Your task to perform on an android device: Go to CNN.com Image 0: 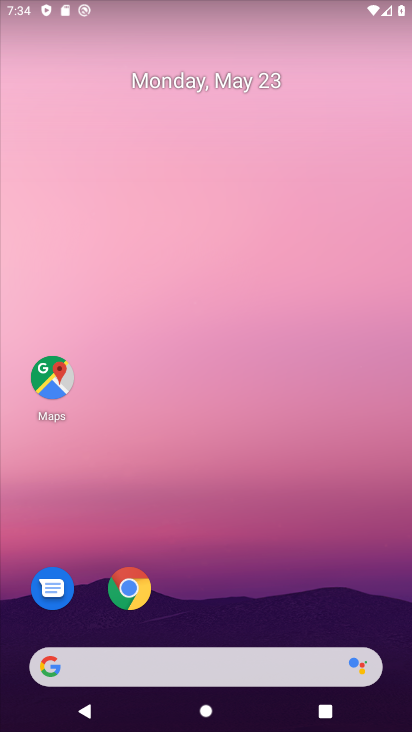
Step 0: click (111, 589)
Your task to perform on an android device: Go to CNN.com Image 1: 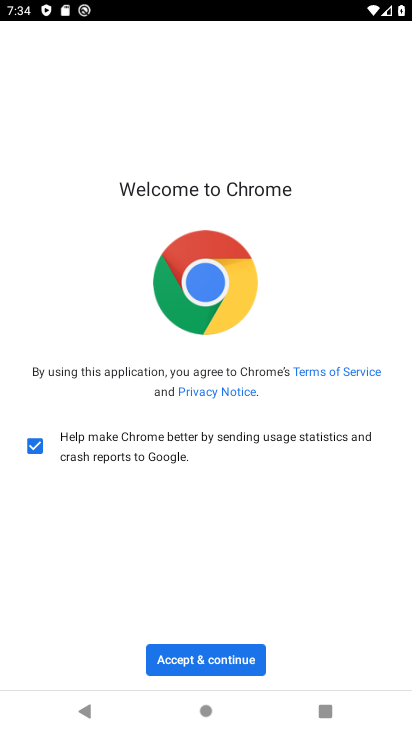
Step 1: click (190, 661)
Your task to perform on an android device: Go to CNN.com Image 2: 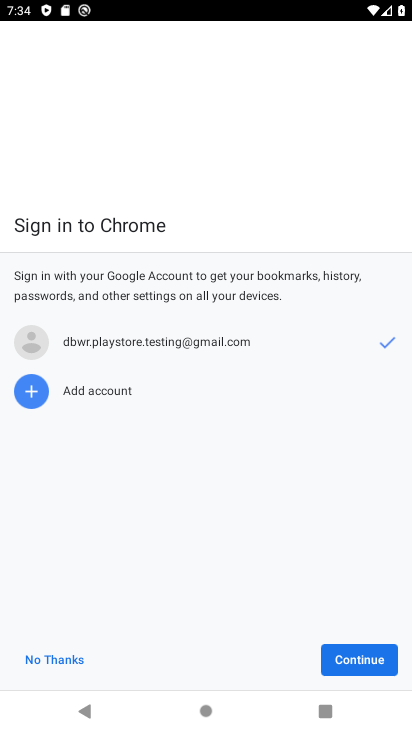
Step 2: click (388, 658)
Your task to perform on an android device: Go to CNN.com Image 3: 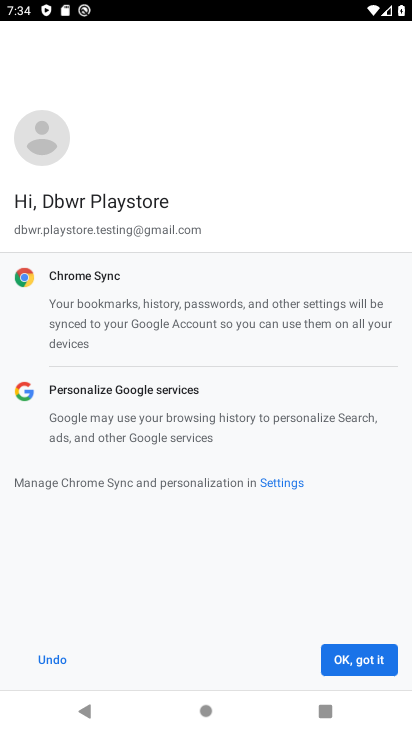
Step 3: click (377, 657)
Your task to perform on an android device: Go to CNN.com Image 4: 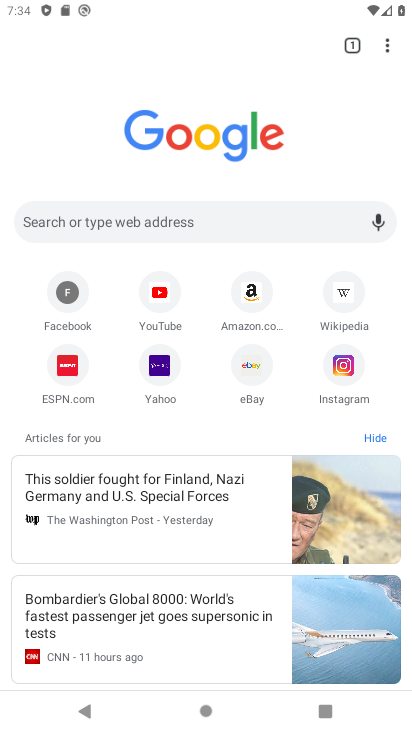
Step 4: click (248, 225)
Your task to perform on an android device: Go to CNN.com Image 5: 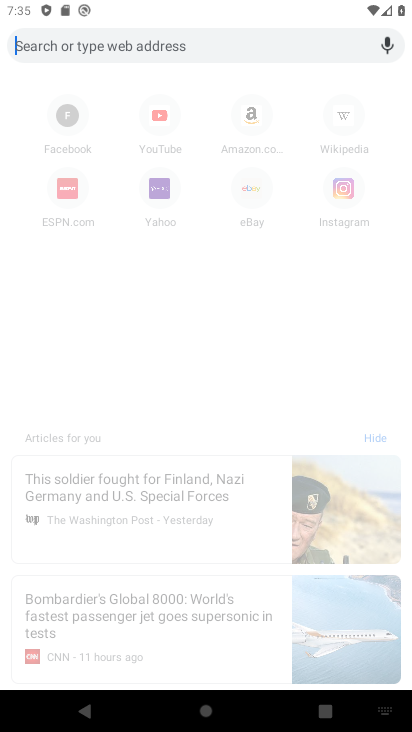
Step 5: type " CNN.com"
Your task to perform on an android device: Go to CNN.com Image 6: 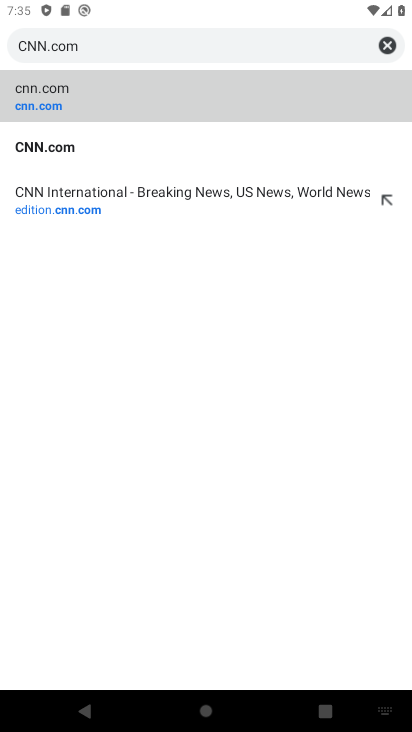
Step 6: click (55, 142)
Your task to perform on an android device: Go to CNN.com Image 7: 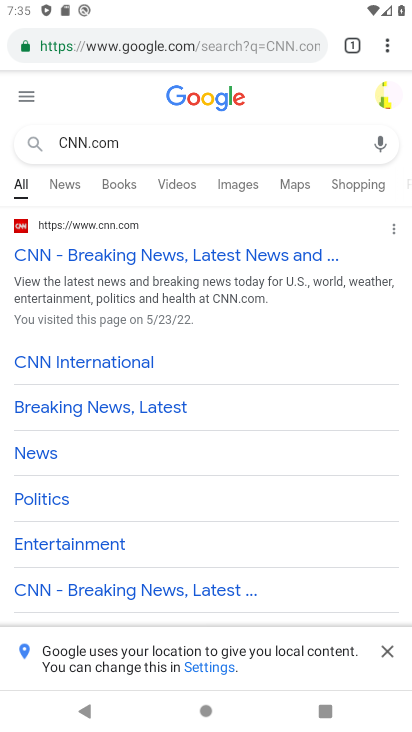
Step 7: task complete